Your task to perform on an android device: Open settings on Google Maps Image 0: 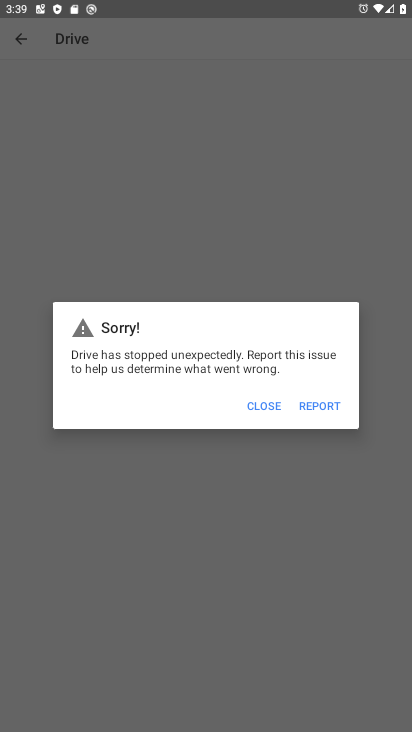
Step 0: press home button
Your task to perform on an android device: Open settings on Google Maps Image 1: 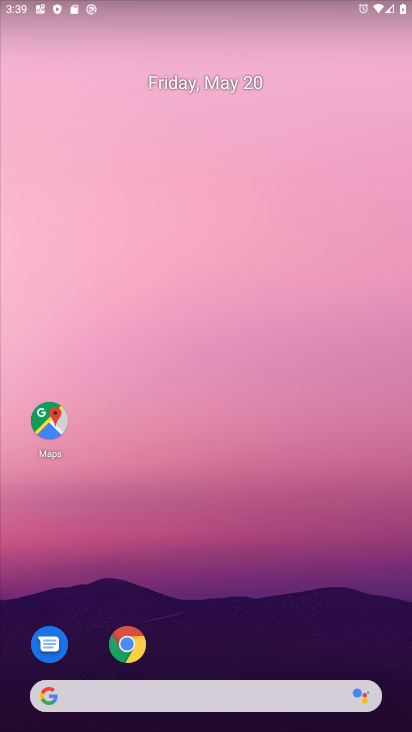
Step 1: click (58, 436)
Your task to perform on an android device: Open settings on Google Maps Image 2: 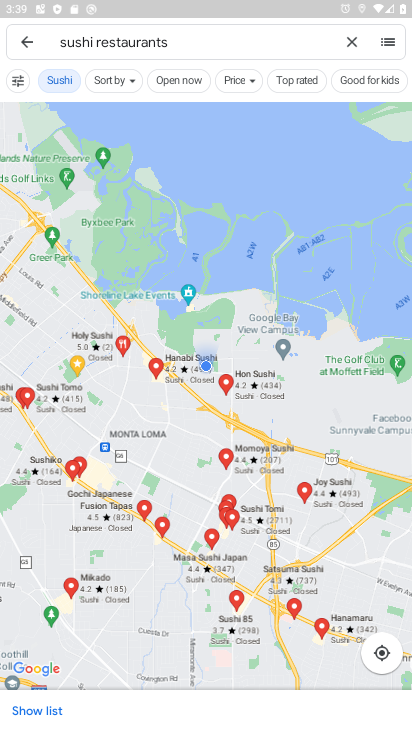
Step 2: click (391, 39)
Your task to perform on an android device: Open settings on Google Maps Image 3: 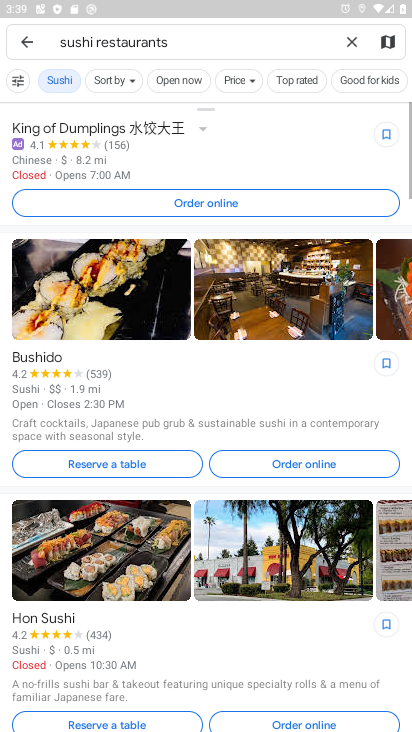
Step 3: click (391, 39)
Your task to perform on an android device: Open settings on Google Maps Image 4: 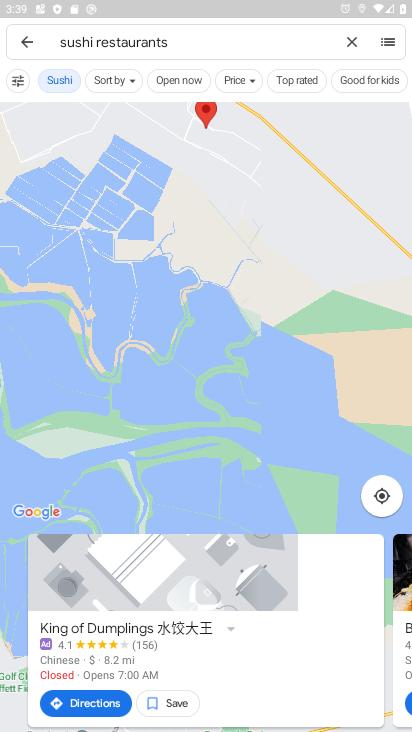
Step 4: click (345, 39)
Your task to perform on an android device: Open settings on Google Maps Image 5: 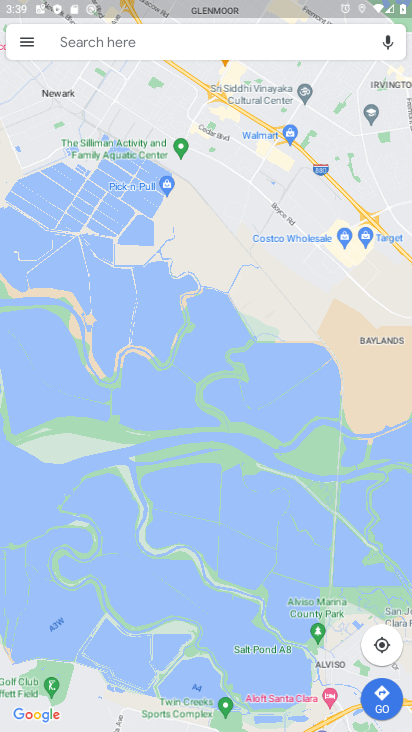
Step 5: click (30, 48)
Your task to perform on an android device: Open settings on Google Maps Image 6: 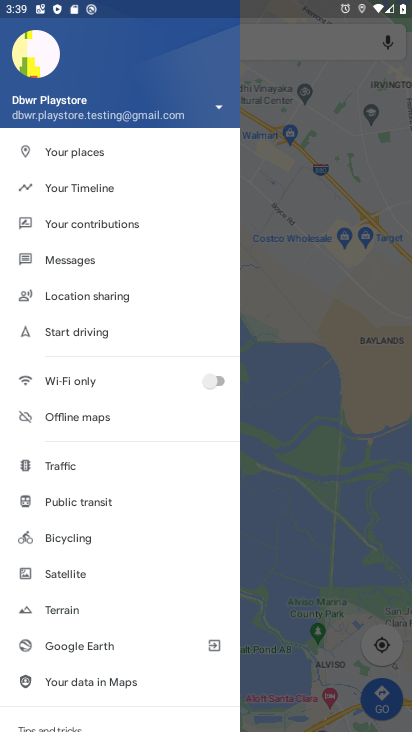
Step 6: drag from (125, 684) to (198, 150)
Your task to perform on an android device: Open settings on Google Maps Image 7: 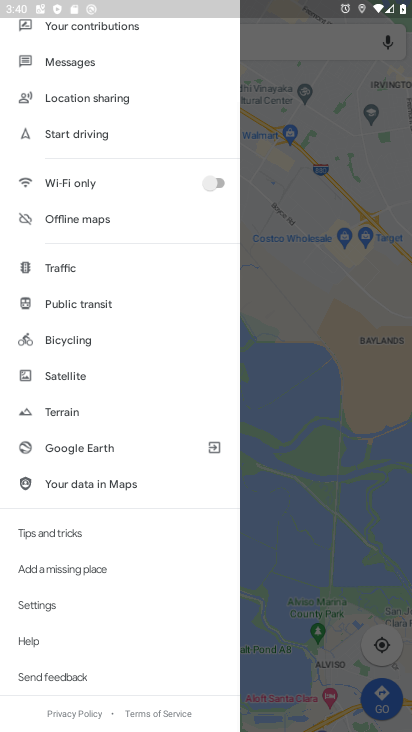
Step 7: click (145, 599)
Your task to perform on an android device: Open settings on Google Maps Image 8: 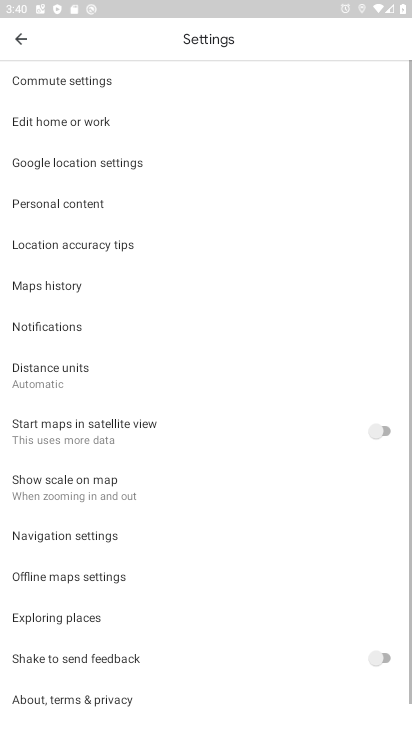
Step 8: task complete